Your task to perform on an android device: Go to internet settings Image 0: 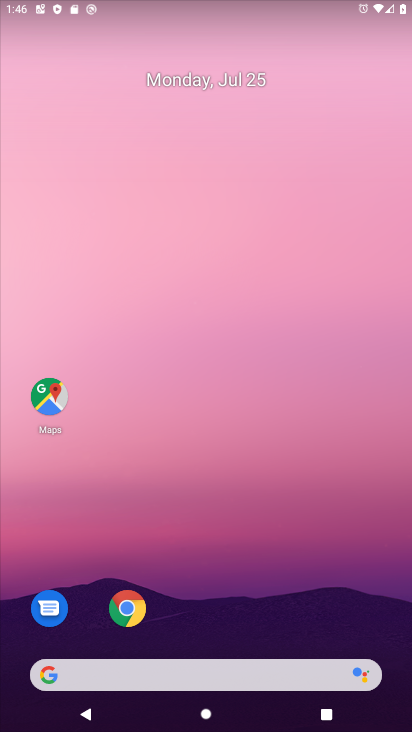
Step 0: drag from (309, 585) to (289, 93)
Your task to perform on an android device: Go to internet settings Image 1: 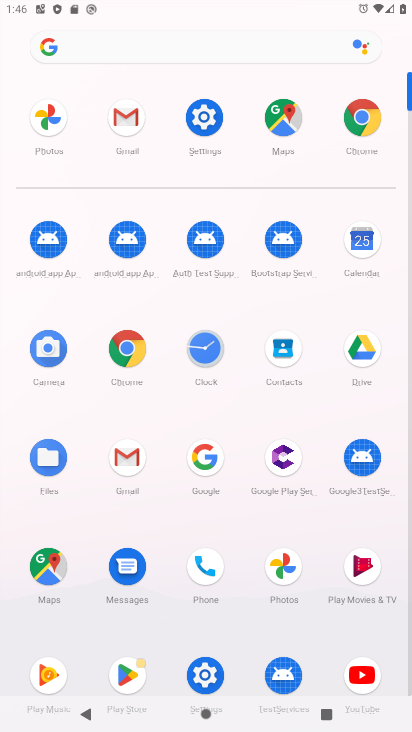
Step 1: click (207, 119)
Your task to perform on an android device: Go to internet settings Image 2: 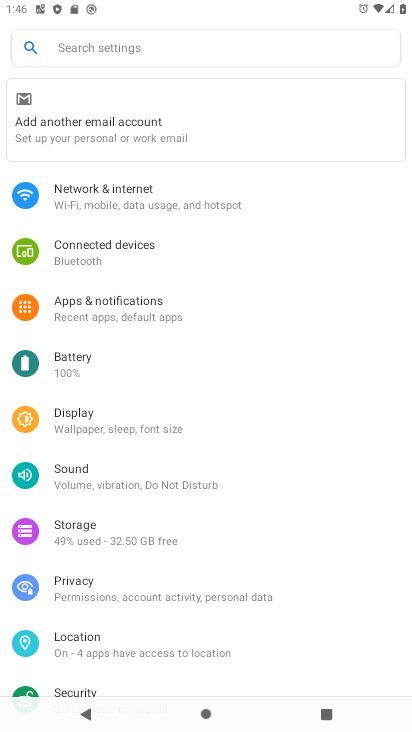
Step 2: click (161, 204)
Your task to perform on an android device: Go to internet settings Image 3: 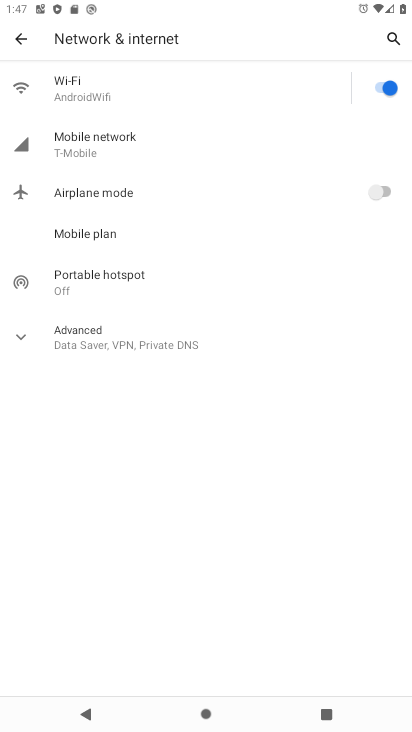
Step 3: click (117, 338)
Your task to perform on an android device: Go to internet settings Image 4: 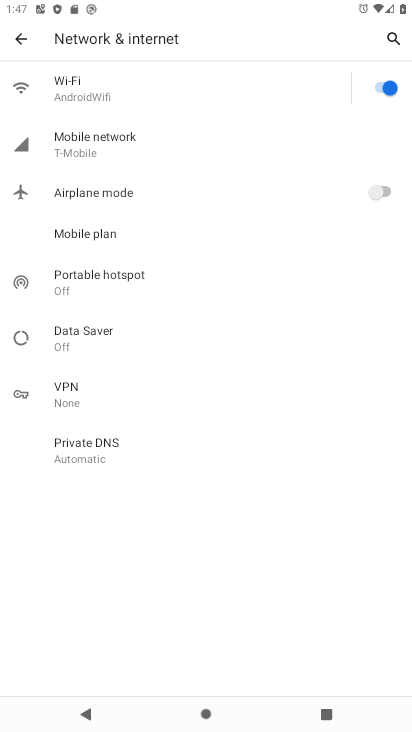
Step 4: task complete